Your task to perform on an android device: turn on airplane mode Image 0: 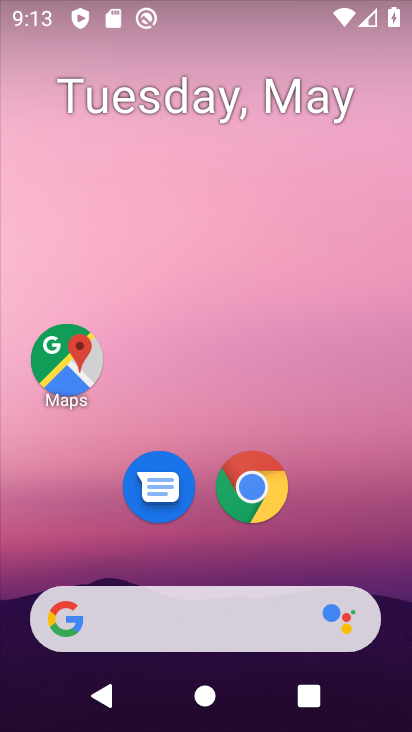
Step 0: drag from (186, 557) to (214, 152)
Your task to perform on an android device: turn on airplane mode Image 1: 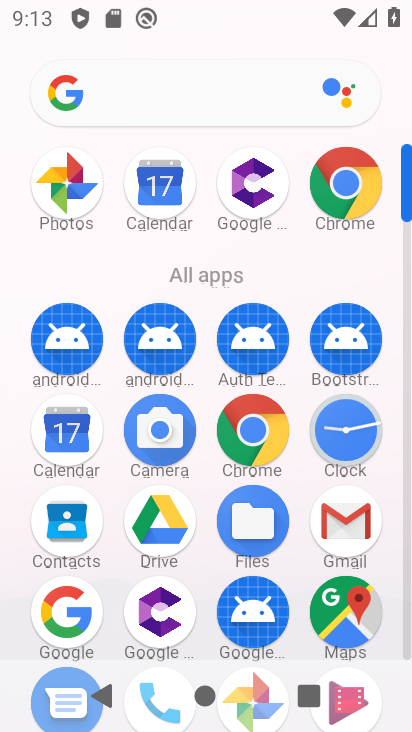
Step 1: drag from (250, 410) to (258, 357)
Your task to perform on an android device: turn on airplane mode Image 2: 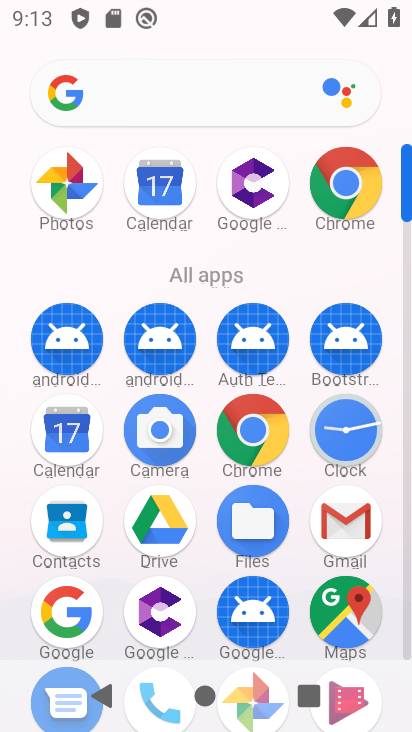
Step 2: drag from (212, 581) to (202, 243)
Your task to perform on an android device: turn on airplane mode Image 3: 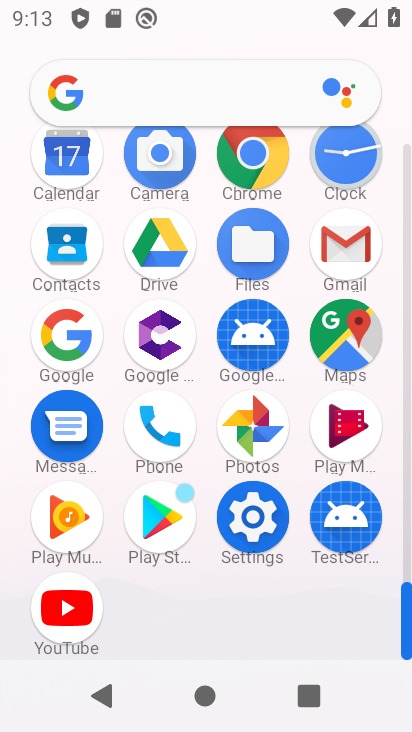
Step 3: click (246, 532)
Your task to perform on an android device: turn on airplane mode Image 4: 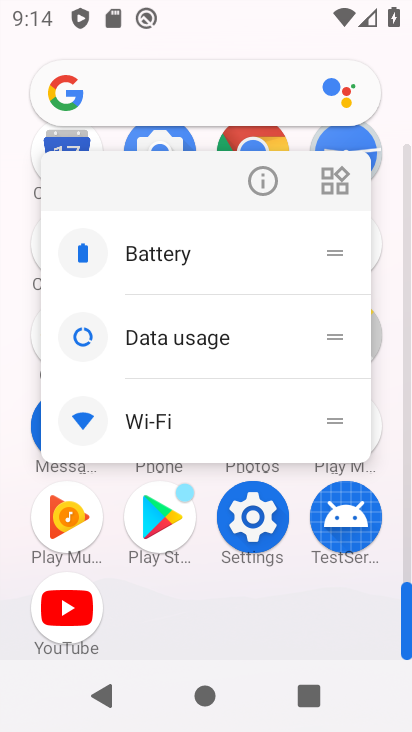
Step 4: click (248, 191)
Your task to perform on an android device: turn on airplane mode Image 5: 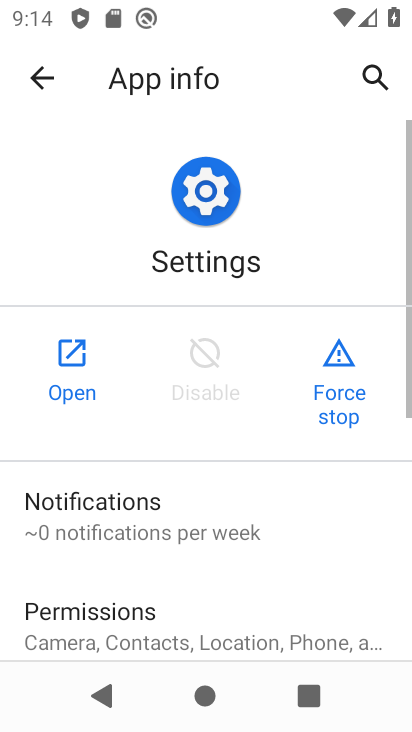
Step 5: click (105, 359)
Your task to perform on an android device: turn on airplane mode Image 6: 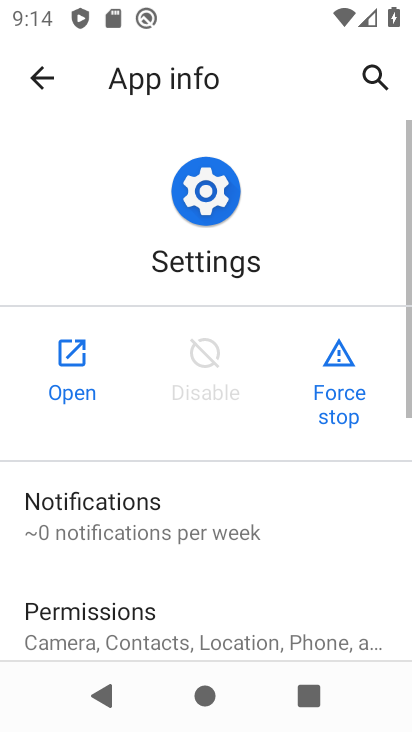
Step 6: click (97, 351)
Your task to perform on an android device: turn on airplane mode Image 7: 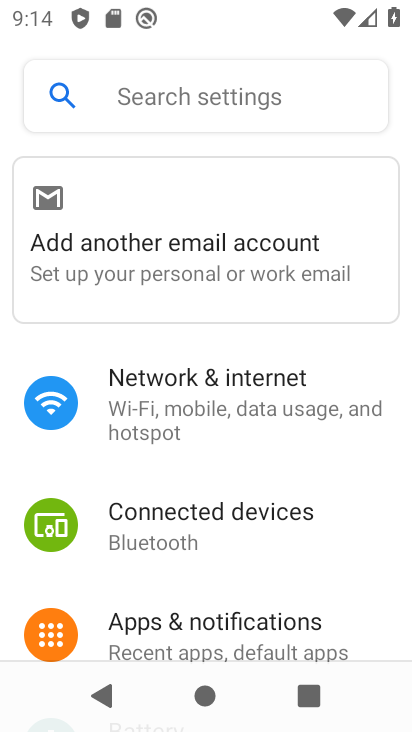
Step 7: click (202, 403)
Your task to perform on an android device: turn on airplane mode Image 8: 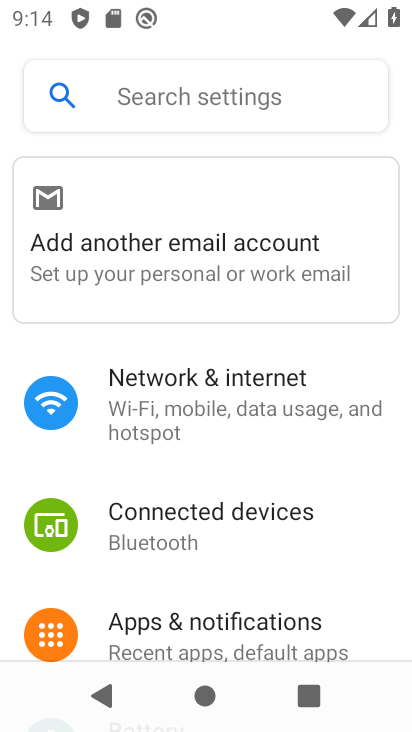
Step 8: click (202, 403)
Your task to perform on an android device: turn on airplane mode Image 9: 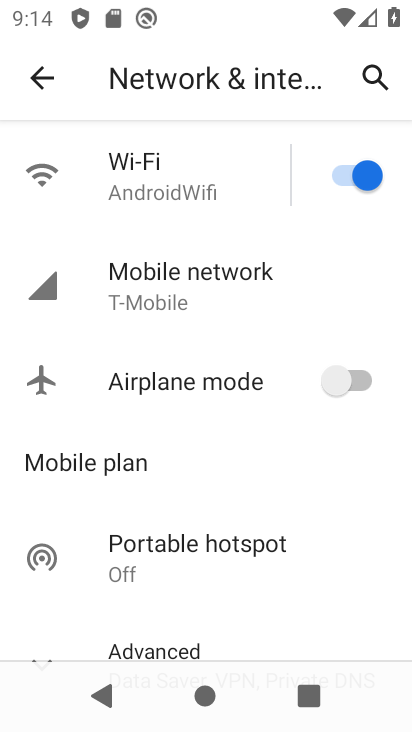
Step 9: click (186, 387)
Your task to perform on an android device: turn on airplane mode Image 10: 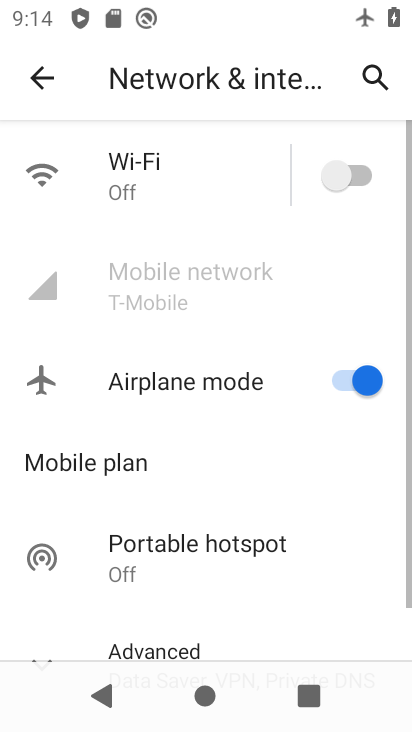
Step 10: task complete